Your task to perform on an android device: Open settings Image 0: 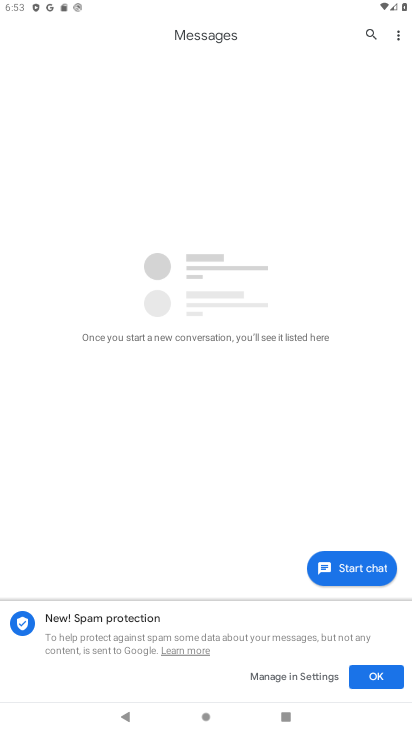
Step 0: press home button
Your task to perform on an android device: Open settings Image 1: 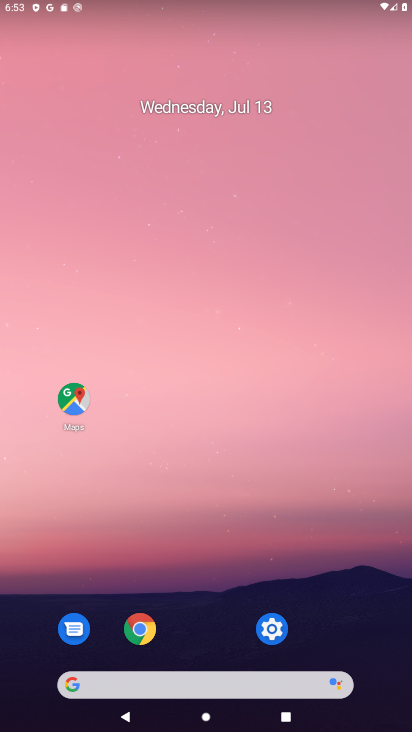
Step 1: click (263, 633)
Your task to perform on an android device: Open settings Image 2: 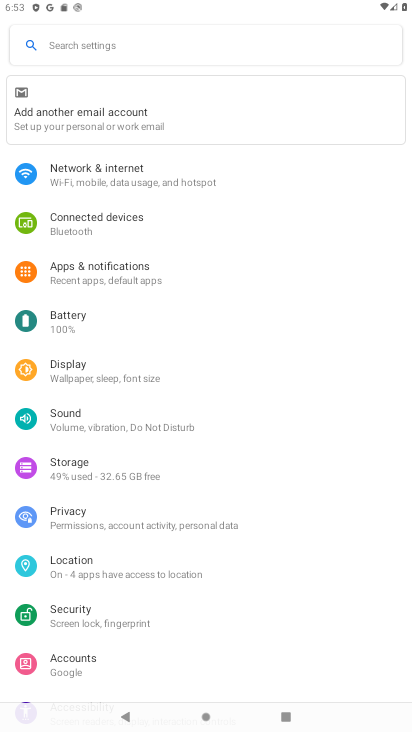
Step 2: task complete